Your task to perform on an android device: Open calendar and show me the second week of next month Image 0: 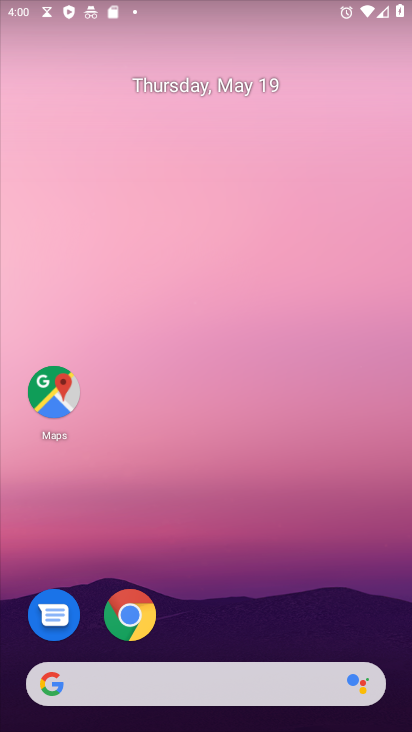
Step 0: drag from (367, 687) to (190, 0)
Your task to perform on an android device: Open calendar and show me the second week of next month Image 1: 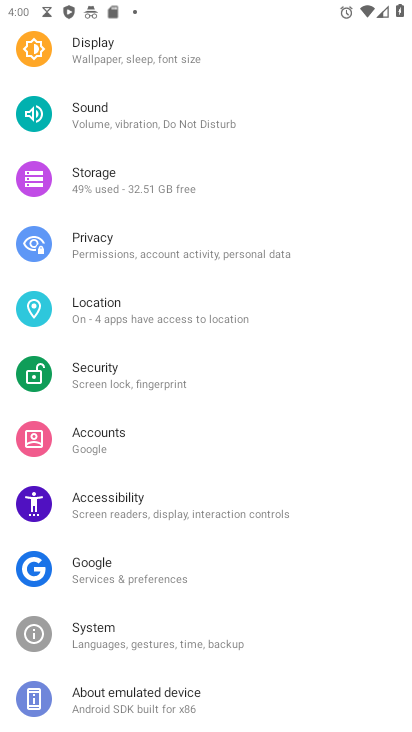
Step 1: press back button
Your task to perform on an android device: Open calendar and show me the second week of next month Image 2: 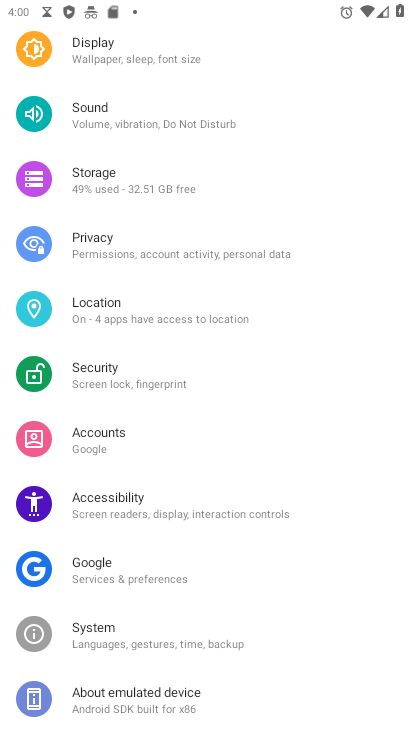
Step 2: press back button
Your task to perform on an android device: Open calendar and show me the second week of next month Image 3: 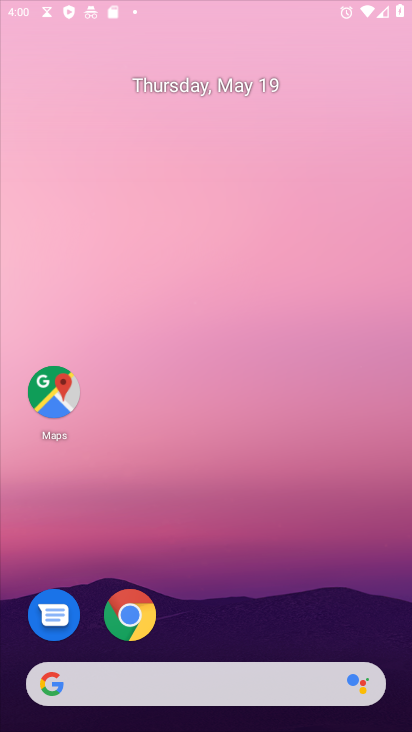
Step 3: press back button
Your task to perform on an android device: Open calendar and show me the second week of next month Image 4: 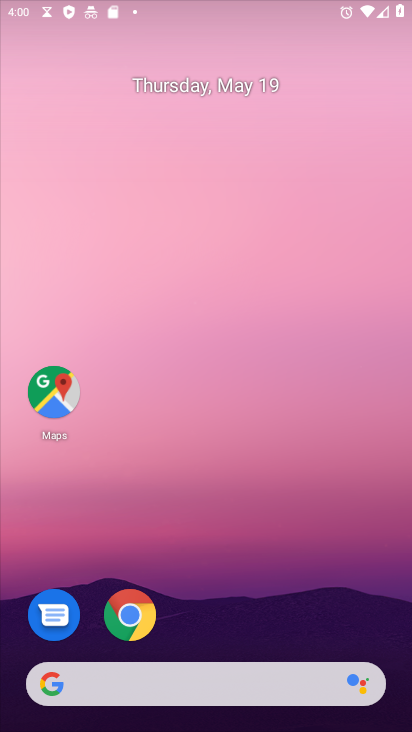
Step 4: press back button
Your task to perform on an android device: Open calendar and show me the second week of next month Image 5: 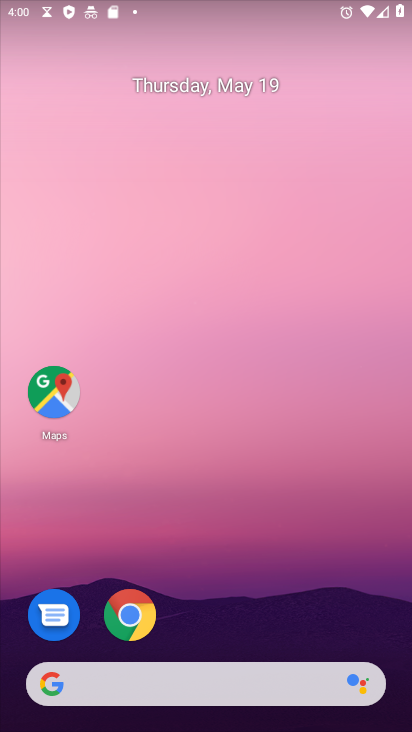
Step 5: drag from (219, 602) to (204, 147)
Your task to perform on an android device: Open calendar and show me the second week of next month Image 6: 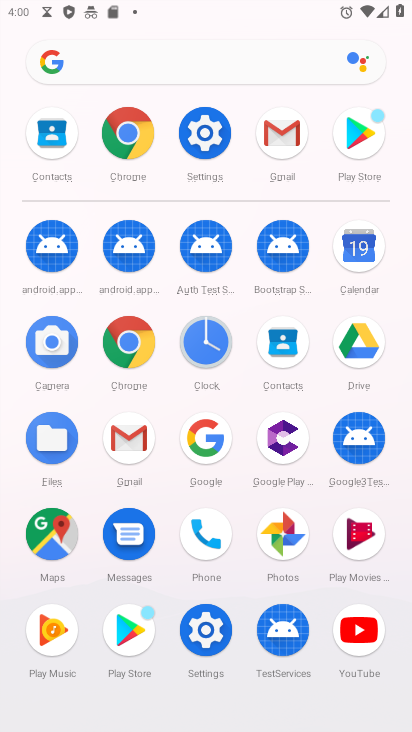
Step 6: click (360, 244)
Your task to perform on an android device: Open calendar and show me the second week of next month Image 7: 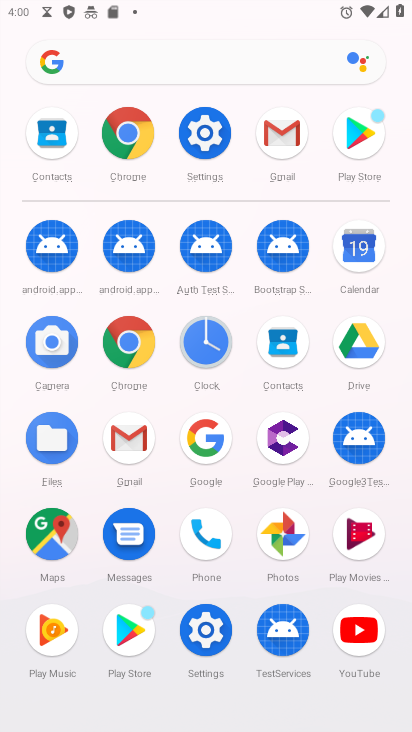
Step 7: click (360, 243)
Your task to perform on an android device: Open calendar and show me the second week of next month Image 8: 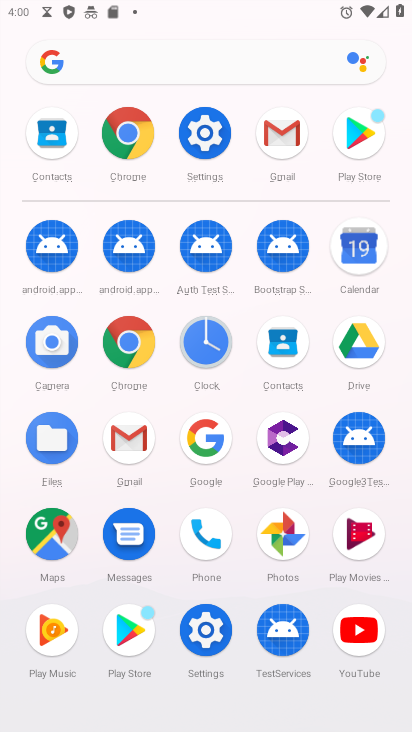
Step 8: click (360, 243)
Your task to perform on an android device: Open calendar and show me the second week of next month Image 9: 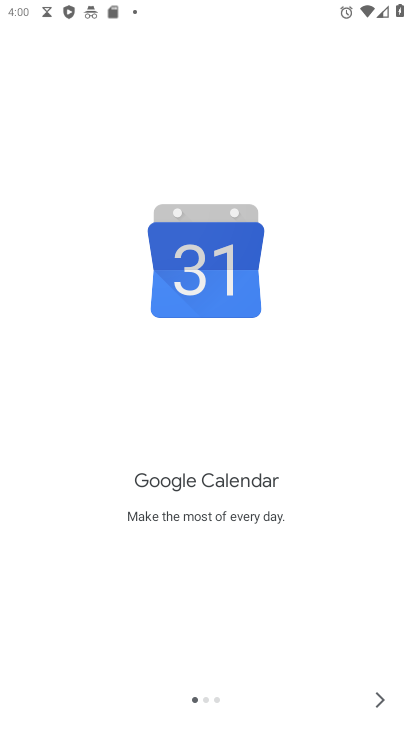
Step 9: click (377, 700)
Your task to perform on an android device: Open calendar and show me the second week of next month Image 10: 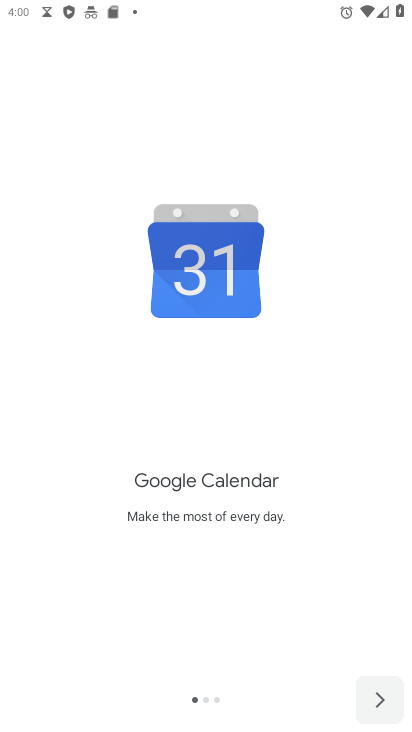
Step 10: click (377, 700)
Your task to perform on an android device: Open calendar and show me the second week of next month Image 11: 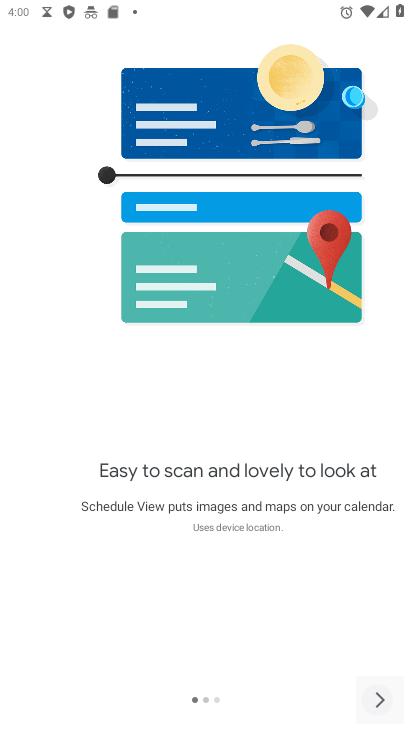
Step 11: click (377, 700)
Your task to perform on an android device: Open calendar and show me the second week of next month Image 12: 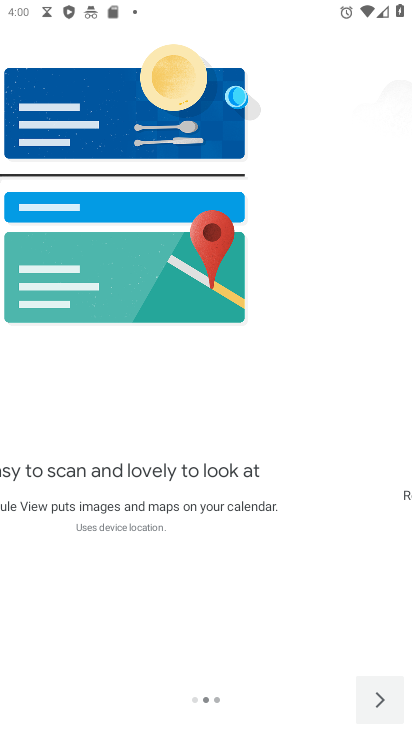
Step 12: click (377, 700)
Your task to perform on an android device: Open calendar and show me the second week of next month Image 13: 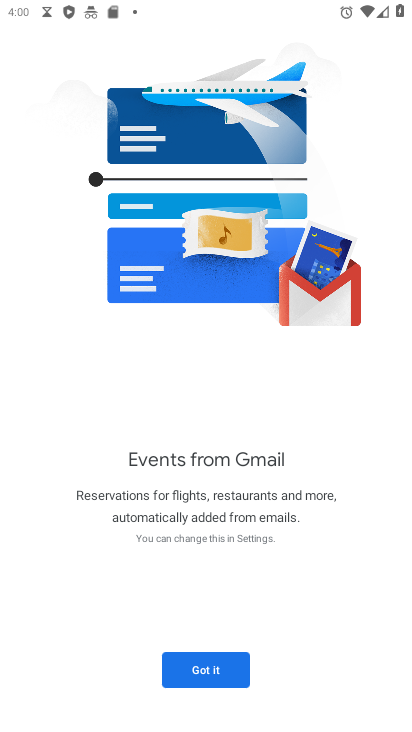
Step 13: click (377, 700)
Your task to perform on an android device: Open calendar and show me the second week of next month Image 14: 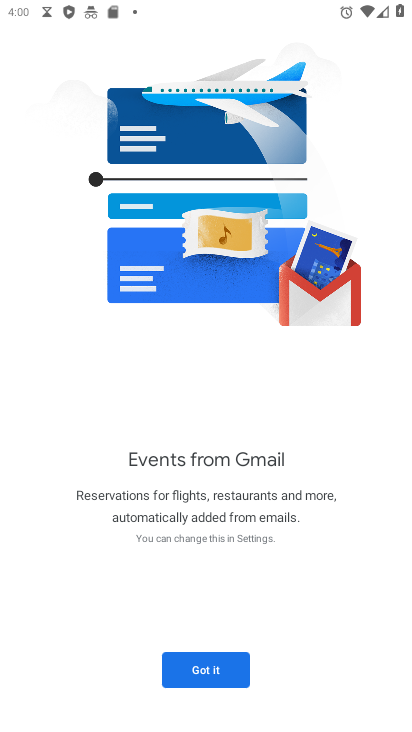
Step 14: click (192, 671)
Your task to perform on an android device: Open calendar and show me the second week of next month Image 15: 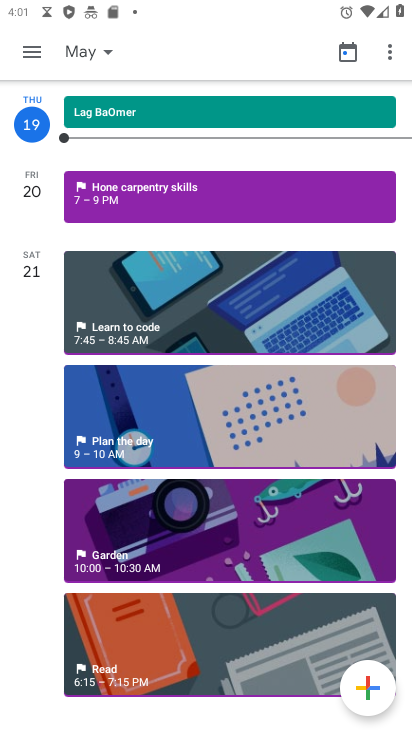
Step 15: click (100, 45)
Your task to perform on an android device: Open calendar and show me the second week of next month Image 16: 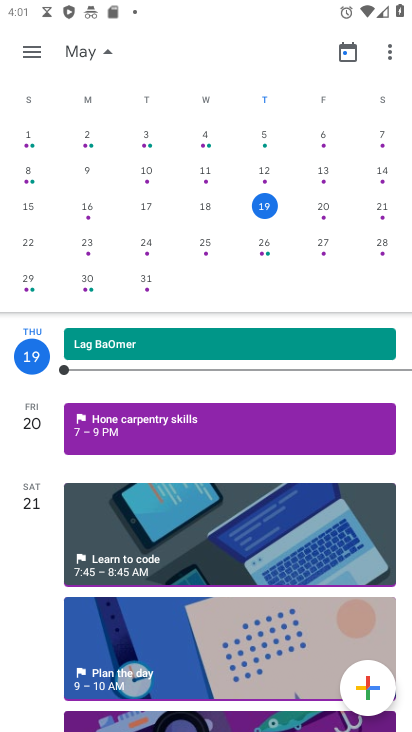
Step 16: drag from (286, 201) to (50, 307)
Your task to perform on an android device: Open calendar and show me the second week of next month Image 17: 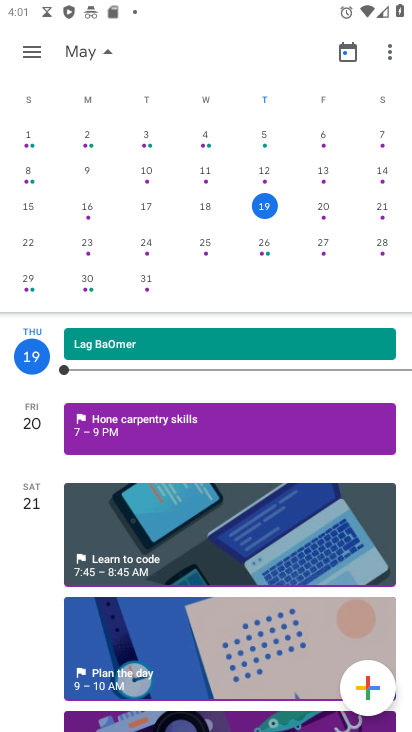
Step 17: drag from (346, 187) to (123, 246)
Your task to perform on an android device: Open calendar and show me the second week of next month Image 18: 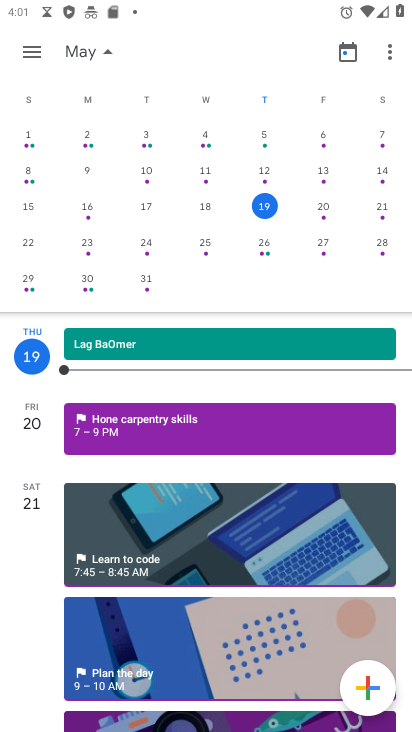
Step 18: drag from (235, 213) to (98, 238)
Your task to perform on an android device: Open calendar and show me the second week of next month Image 19: 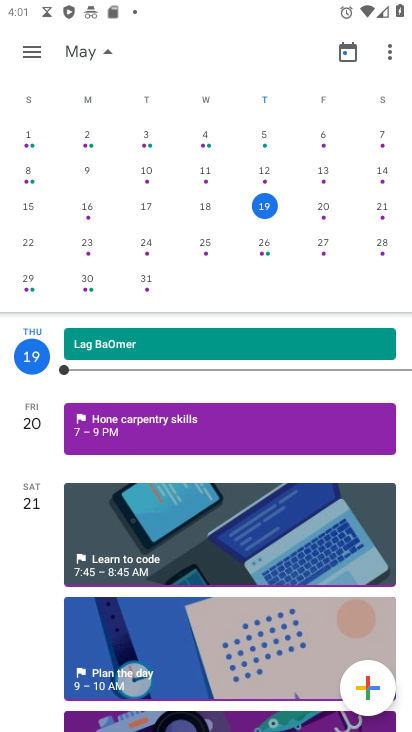
Step 19: click (46, 236)
Your task to perform on an android device: Open calendar and show me the second week of next month Image 20: 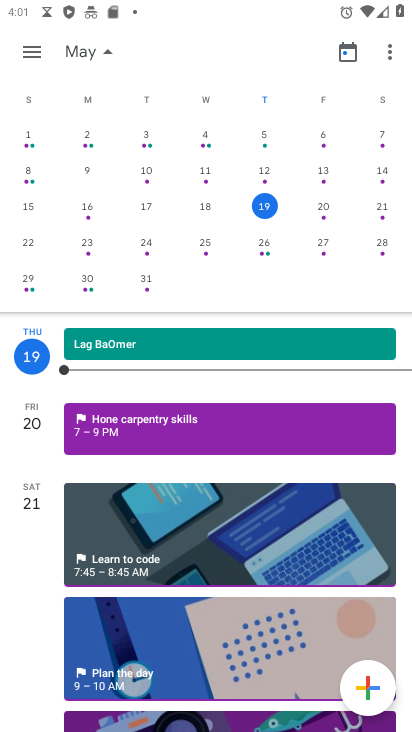
Step 20: drag from (233, 190) to (0, 263)
Your task to perform on an android device: Open calendar and show me the second week of next month Image 21: 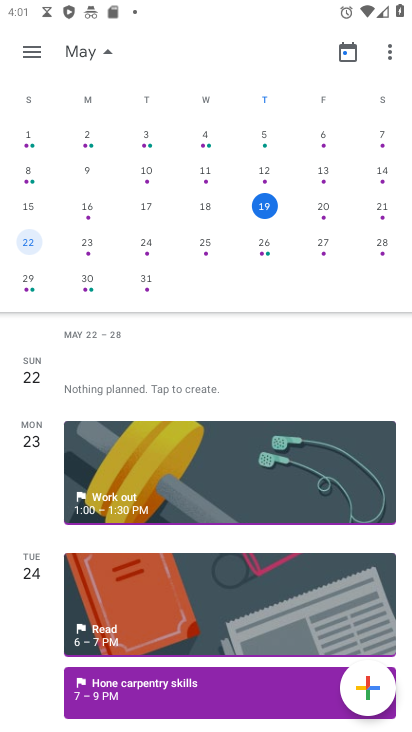
Step 21: drag from (253, 183) to (18, 316)
Your task to perform on an android device: Open calendar and show me the second week of next month Image 22: 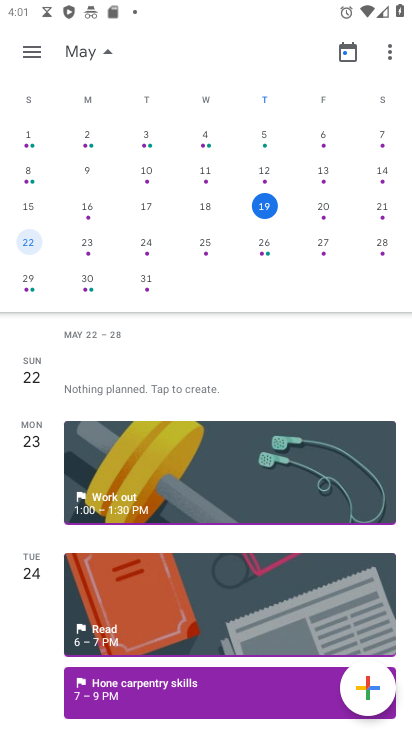
Step 22: drag from (2, 328) to (12, 282)
Your task to perform on an android device: Open calendar and show me the second week of next month Image 23: 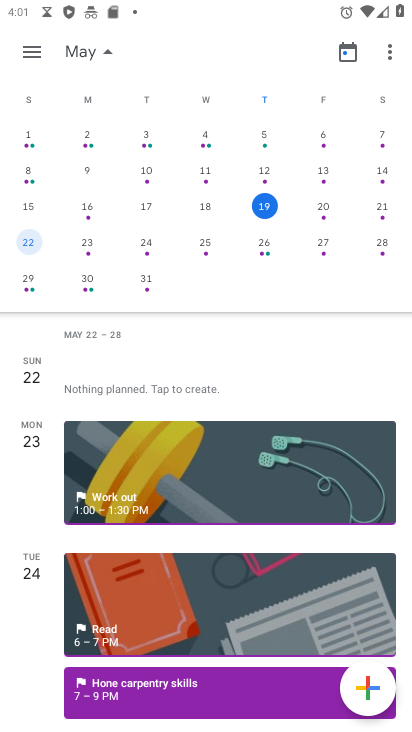
Step 23: drag from (296, 187) to (2, 213)
Your task to perform on an android device: Open calendar and show me the second week of next month Image 24: 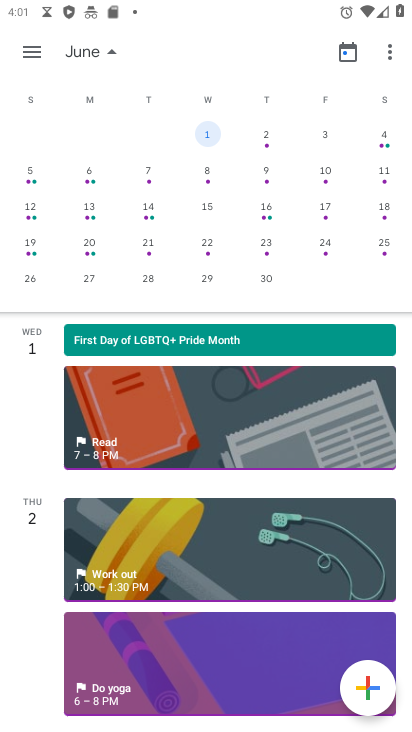
Step 24: click (101, 283)
Your task to perform on an android device: Open calendar and show me the second week of next month Image 25: 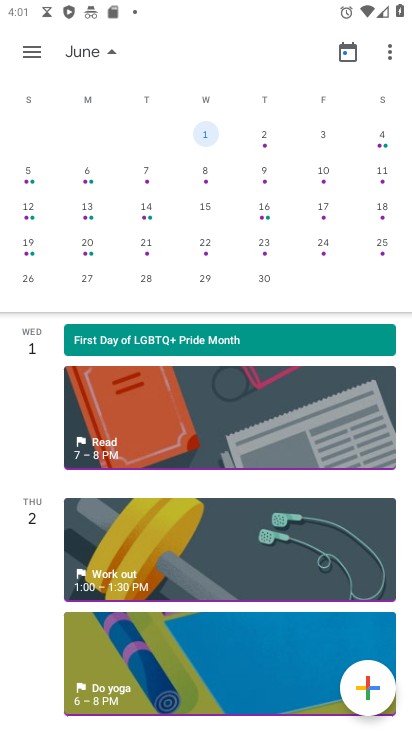
Step 25: click (69, 248)
Your task to perform on an android device: Open calendar and show me the second week of next month Image 26: 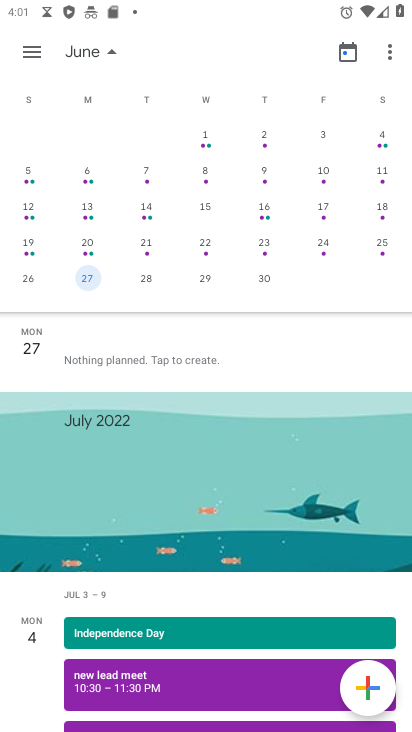
Step 26: drag from (272, 173) to (32, 213)
Your task to perform on an android device: Open calendar and show me the second week of next month Image 27: 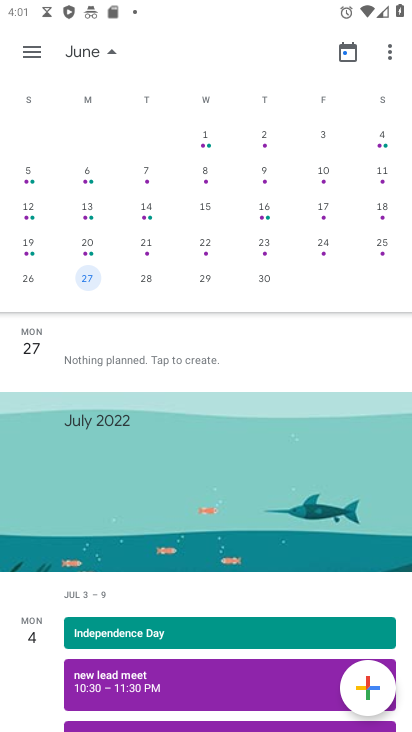
Step 27: click (213, 173)
Your task to perform on an android device: Open calendar and show me the second week of next month Image 28: 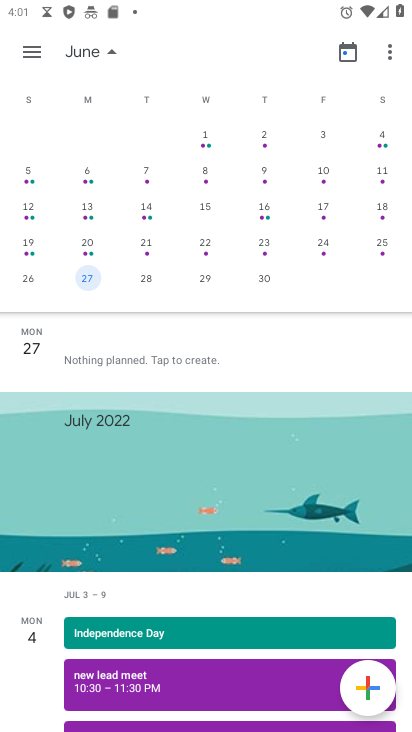
Step 28: click (213, 173)
Your task to perform on an android device: Open calendar and show me the second week of next month Image 29: 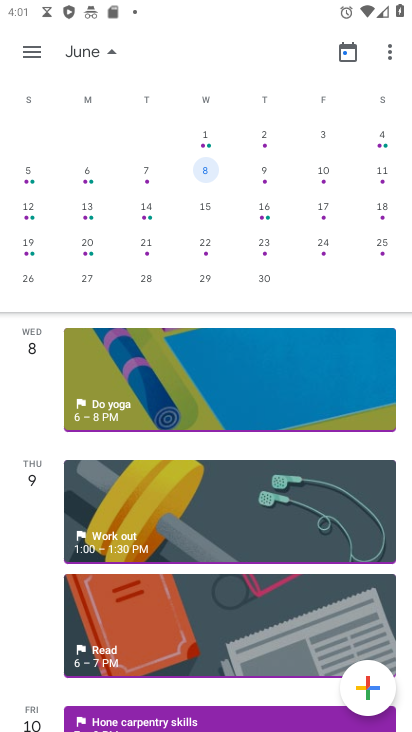
Step 29: click (213, 173)
Your task to perform on an android device: Open calendar and show me the second week of next month Image 30: 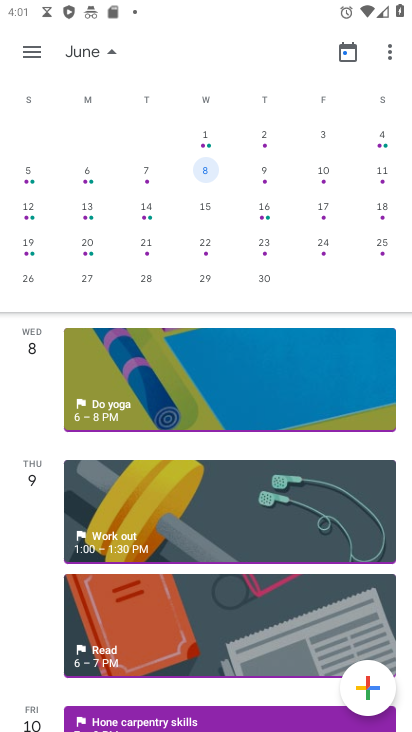
Step 30: task complete